Your task to perform on an android device: Go to Google Image 0: 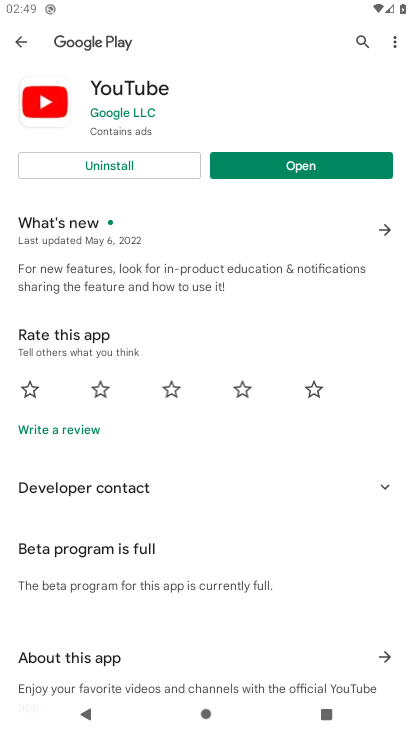
Step 0: press home button
Your task to perform on an android device: Go to Google Image 1: 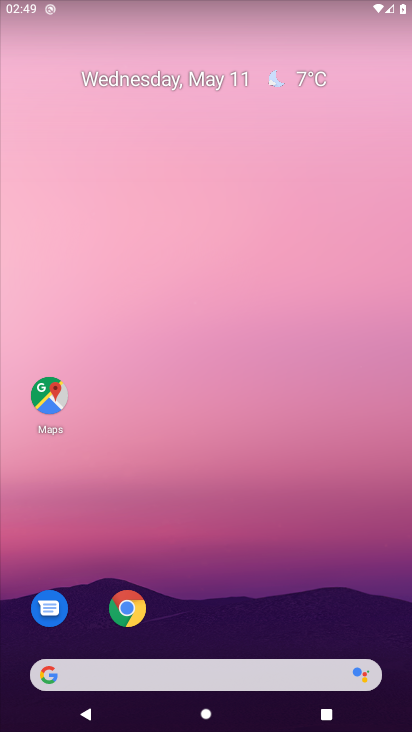
Step 1: drag from (196, 632) to (252, 21)
Your task to perform on an android device: Go to Google Image 2: 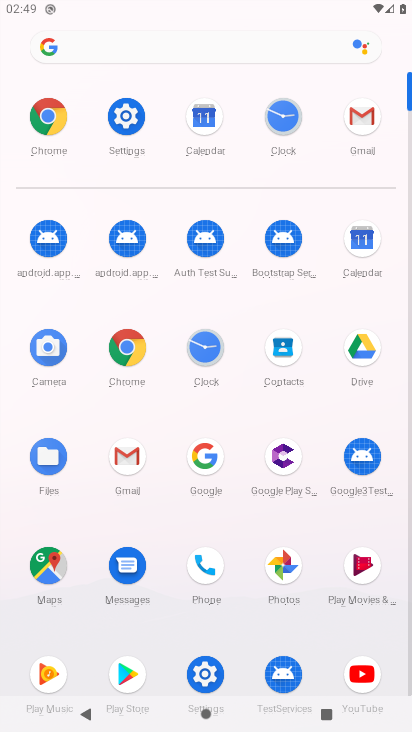
Step 2: click (203, 449)
Your task to perform on an android device: Go to Google Image 3: 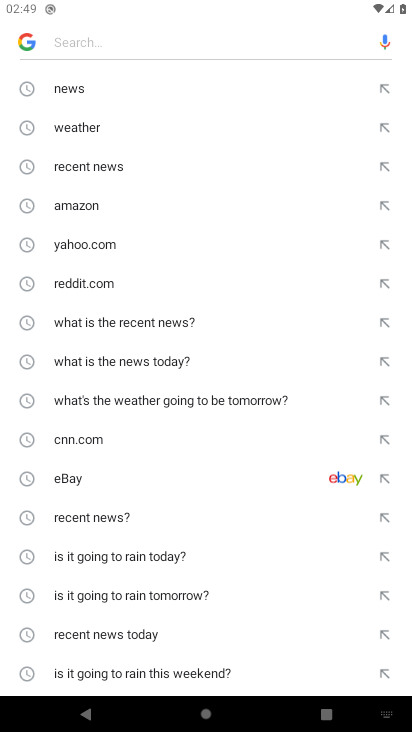
Step 3: task complete